Your task to perform on an android device: turn on location history Image 0: 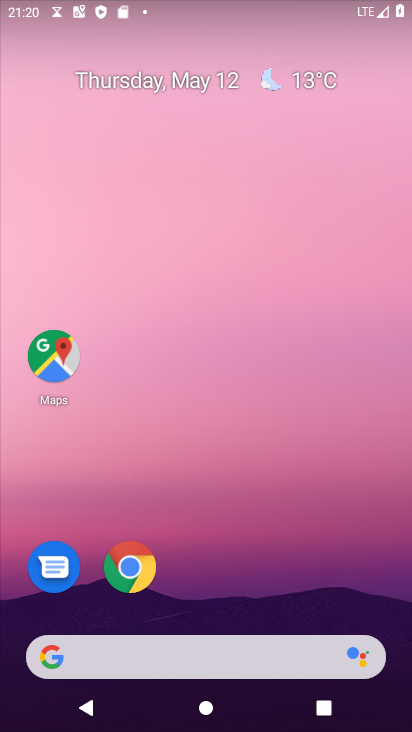
Step 0: drag from (220, 629) to (184, 204)
Your task to perform on an android device: turn on location history Image 1: 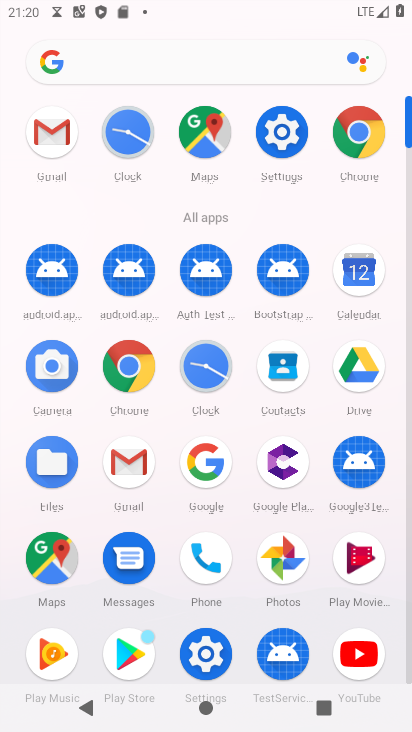
Step 1: click (267, 143)
Your task to perform on an android device: turn on location history Image 2: 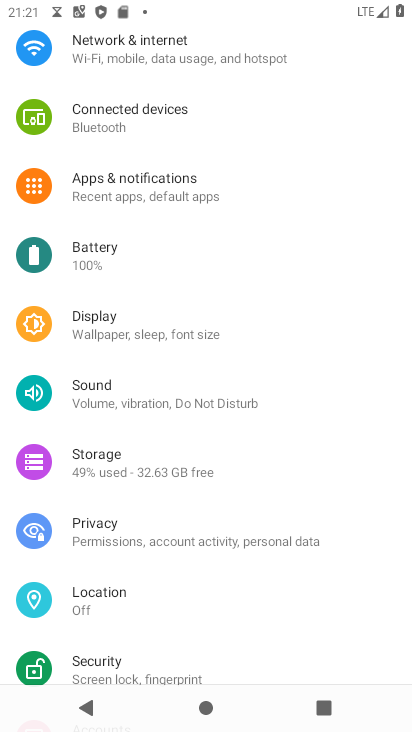
Step 2: click (147, 589)
Your task to perform on an android device: turn on location history Image 3: 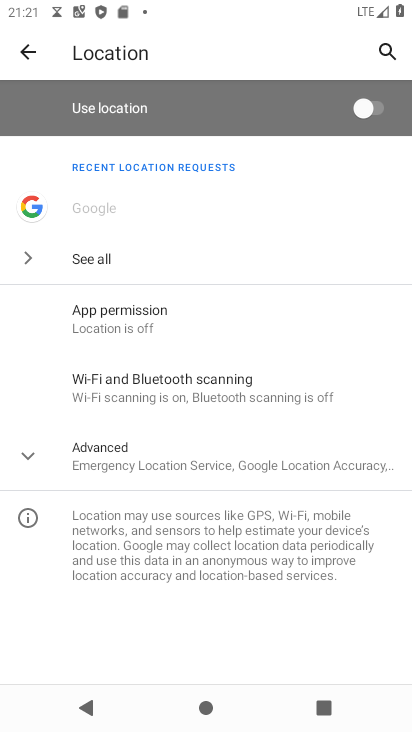
Step 3: click (87, 467)
Your task to perform on an android device: turn on location history Image 4: 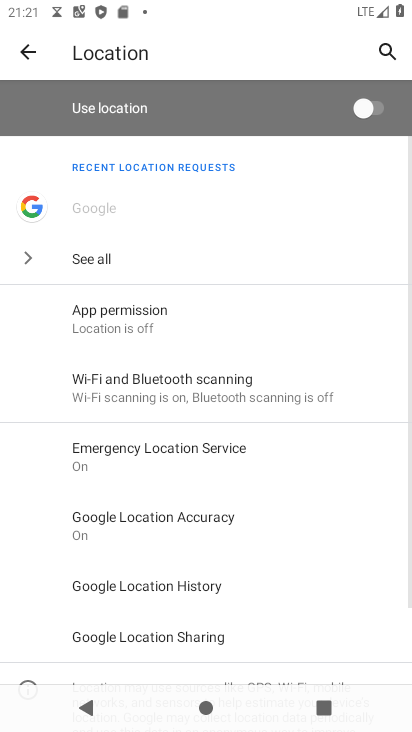
Step 4: drag from (144, 609) to (153, 408)
Your task to perform on an android device: turn on location history Image 5: 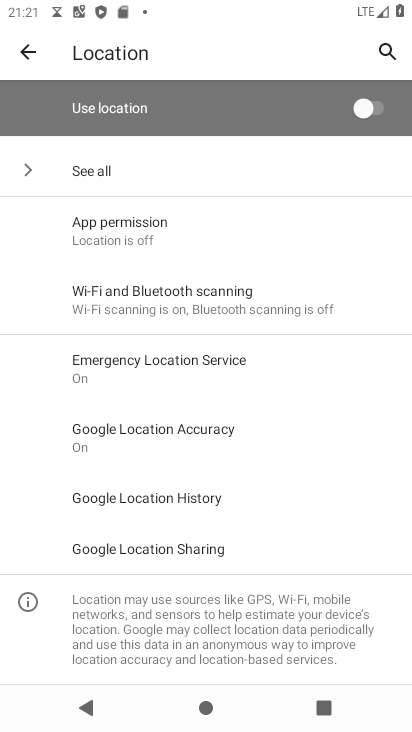
Step 5: click (141, 505)
Your task to perform on an android device: turn on location history Image 6: 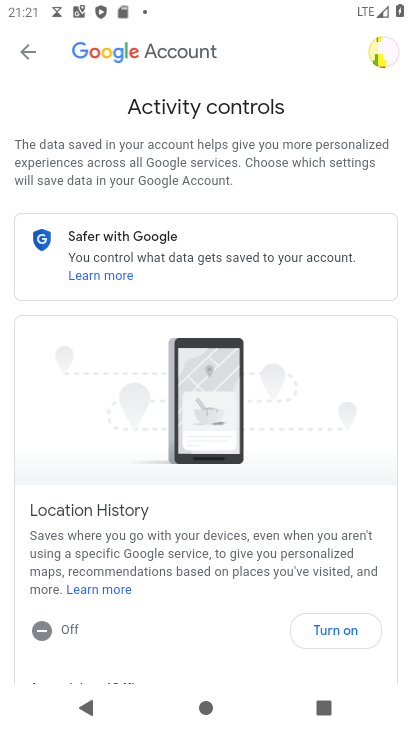
Step 6: click (322, 627)
Your task to perform on an android device: turn on location history Image 7: 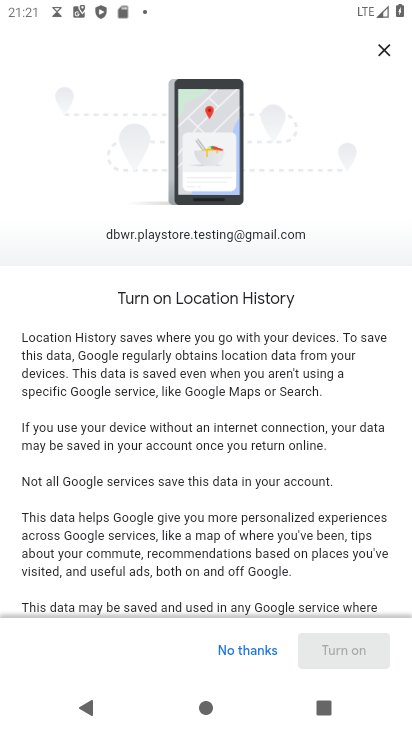
Step 7: drag from (255, 596) to (249, 258)
Your task to perform on an android device: turn on location history Image 8: 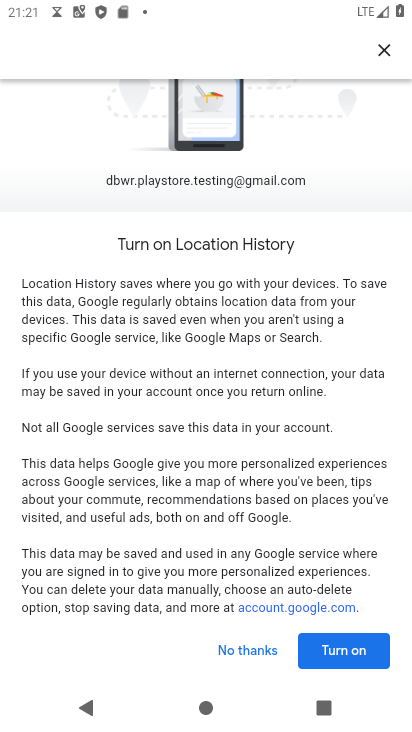
Step 8: click (324, 663)
Your task to perform on an android device: turn on location history Image 9: 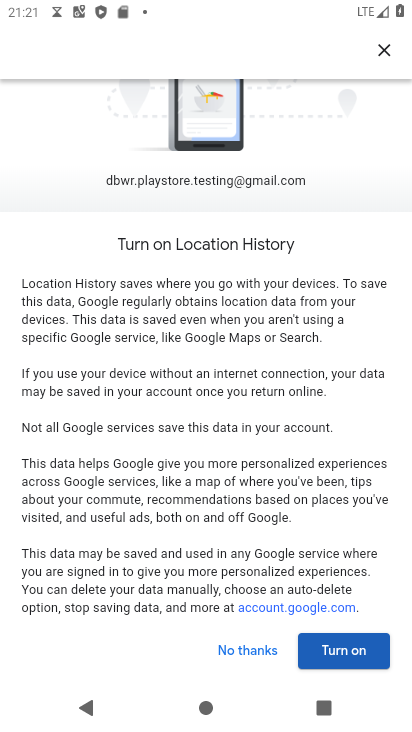
Step 9: click (336, 653)
Your task to perform on an android device: turn on location history Image 10: 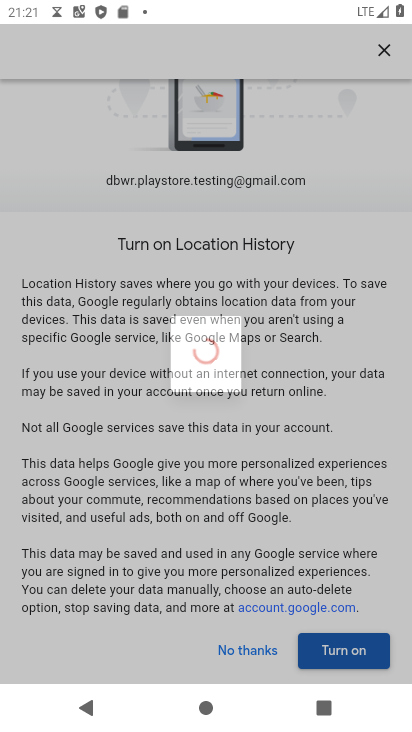
Step 10: click (329, 652)
Your task to perform on an android device: turn on location history Image 11: 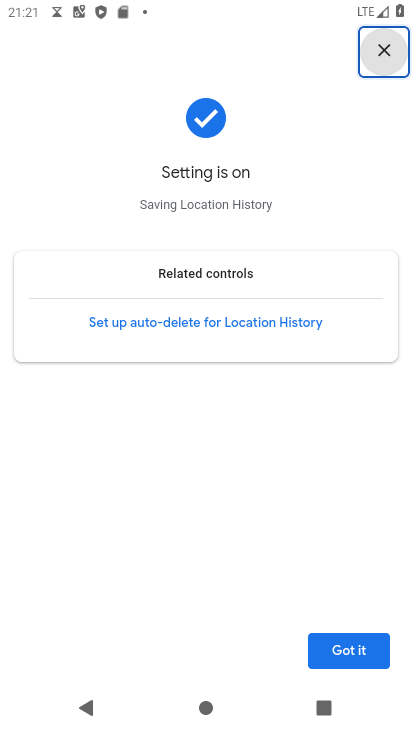
Step 11: click (331, 653)
Your task to perform on an android device: turn on location history Image 12: 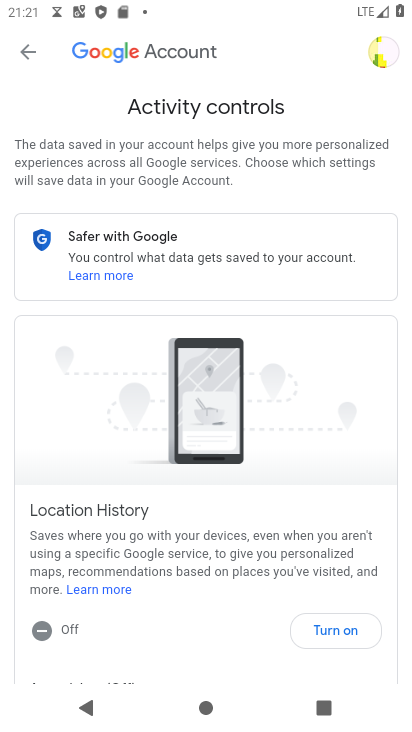
Step 12: click (345, 631)
Your task to perform on an android device: turn on location history Image 13: 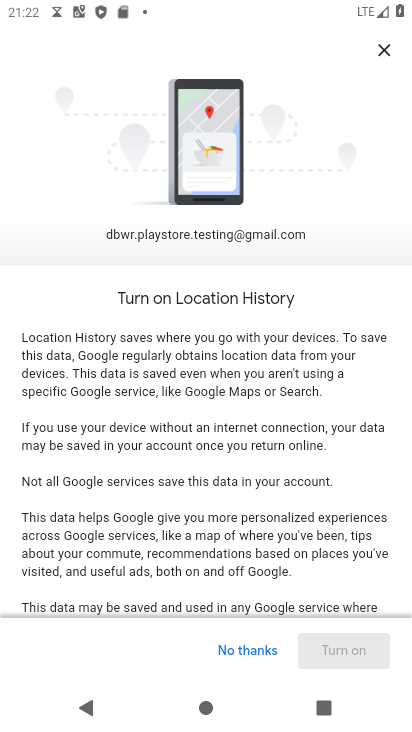
Step 13: drag from (313, 588) to (285, 101)
Your task to perform on an android device: turn on location history Image 14: 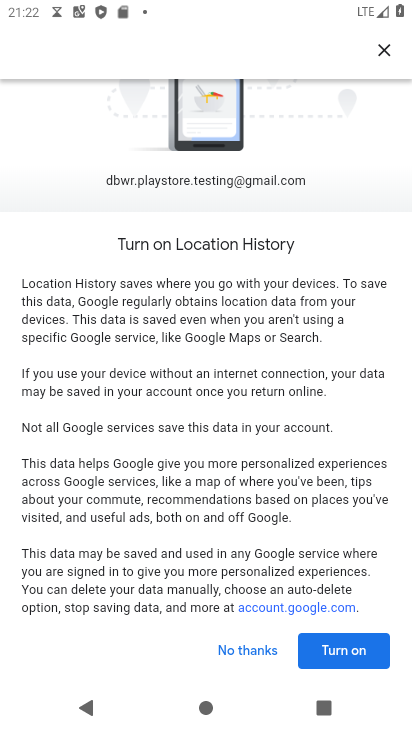
Step 14: click (328, 647)
Your task to perform on an android device: turn on location history Image 15: 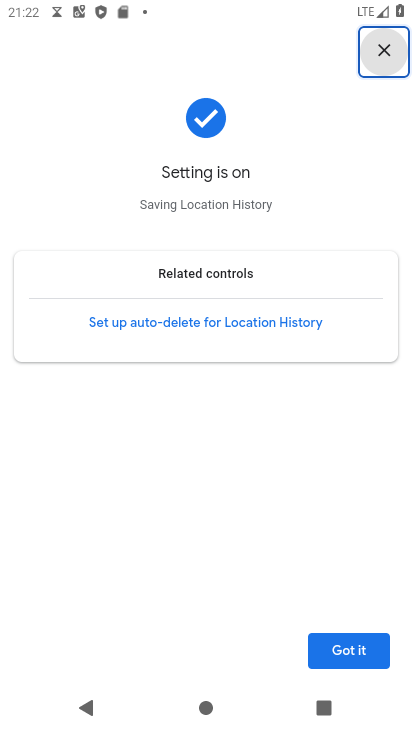
Step 15: click (335, 648)
Your task to perform on an android device: turn on location history Image 16: 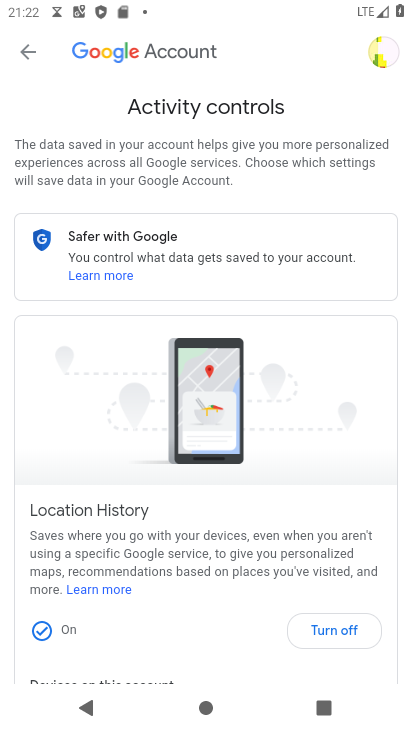
Step 16: task complete